Your task to perform on an android device: turn off javascript in the chrome app Image 0: 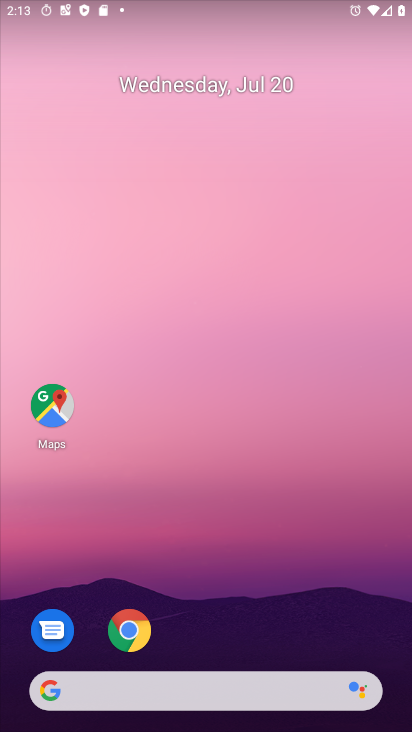
Step 0: click (132, 622)
Your task to perform on an android device: turn off javascript in the chrome app Image 1: 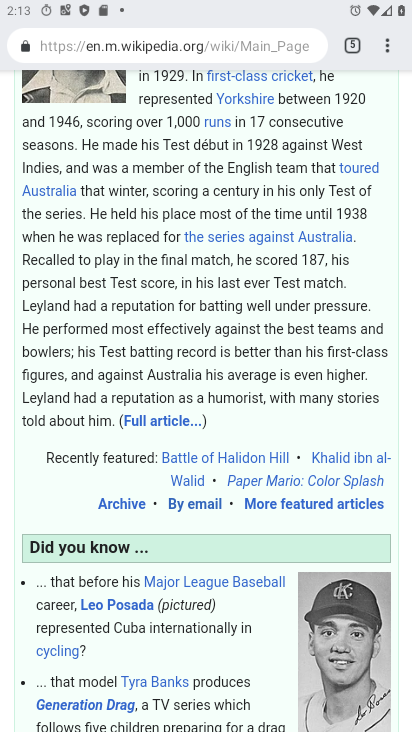
Step 1: drag from (386, 41) to (256, 545)
Your task to perform on an android device: turn off javascript in the chrome app Image 2: 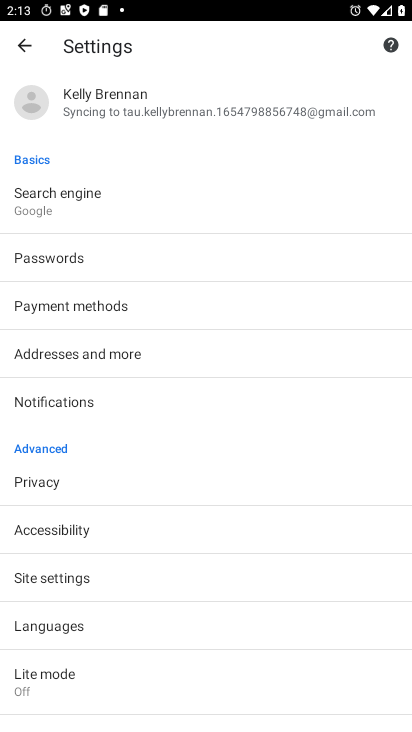
Step 2: click (74, 576)
Your task to perform on an android device: turn off javascript in the chrome app Image 3: 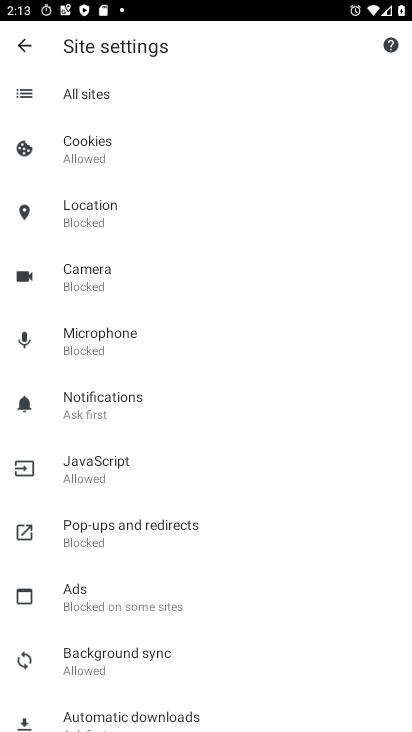
Step 3: click (106, 468)
Your task to perform on an android device: turn off javascript in the chrome app Image 4: 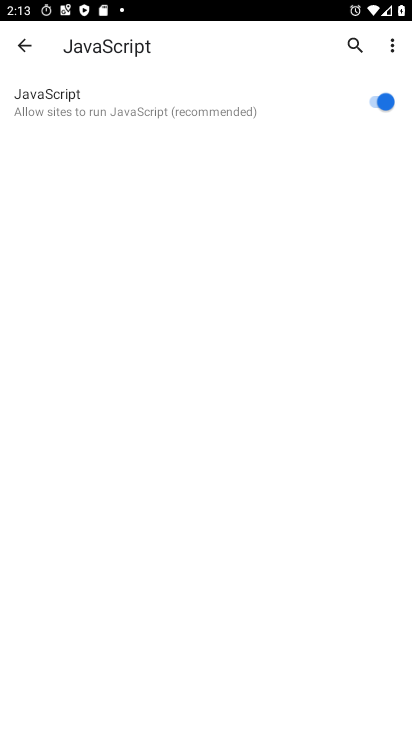
Step 4: click (375, 98)
Your task to perform on an android device: turn off javascript in the chrome app Image 5: 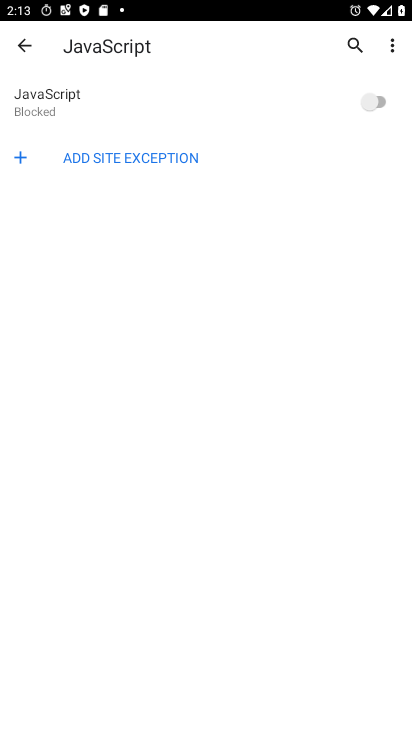
Step 5: task complete